Your task to perform on an android device: clear history in the chrome app Image 0: 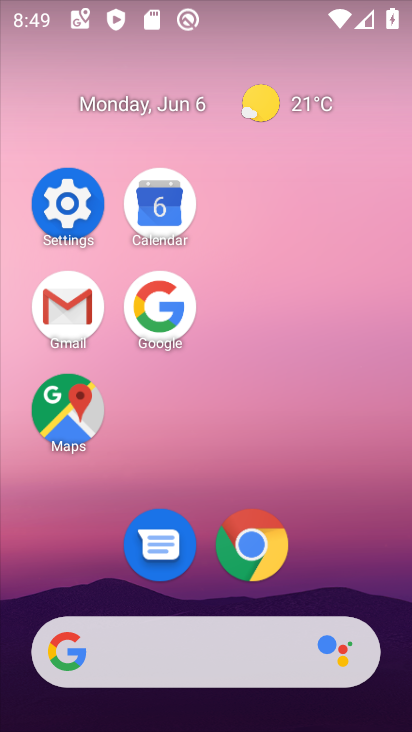
Step 0: click (272, 552)
Your task to perform on an android device: clear history in the chrome app Image 1: 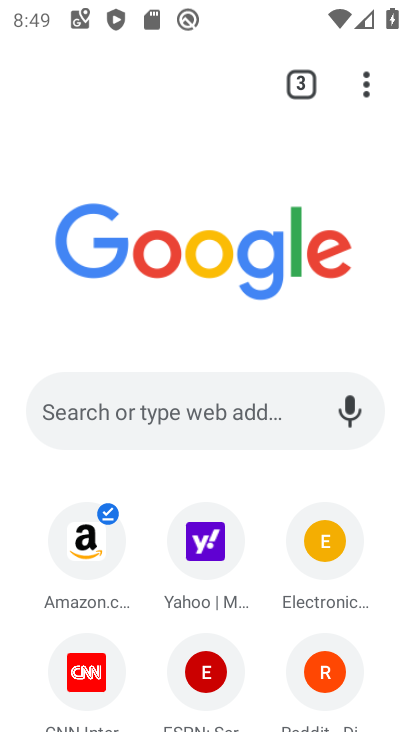
Step 1: click (383, 105)
Your task to perform on an android device: clear history in the chrome app Image 2: 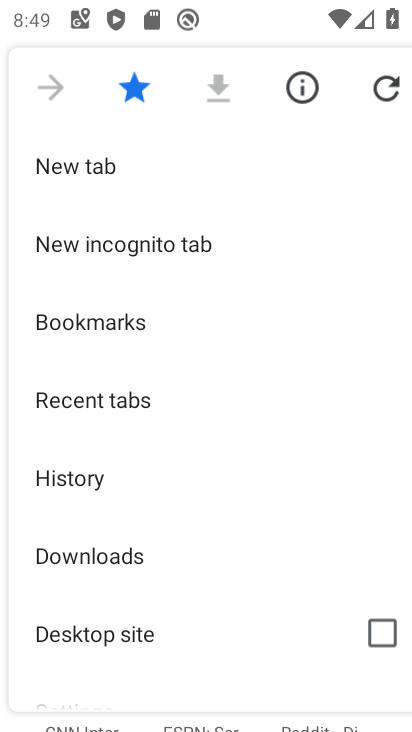
Step 2: click (130, 491)
Your task to perform on an android device: clear history in the chrome app Image 3: 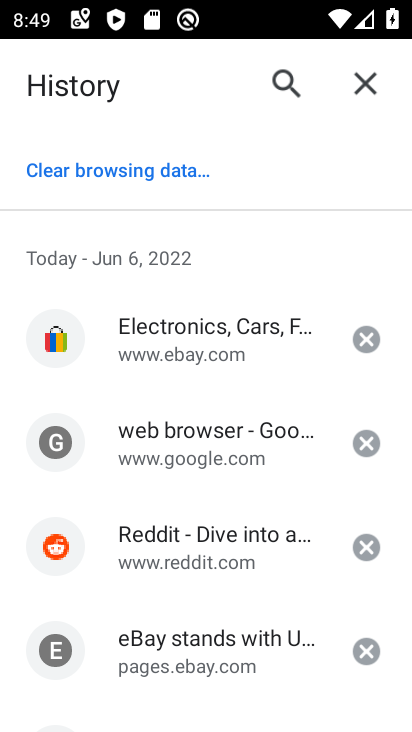
Step 3: click (146, 164)
Your task to perform on an android device: clear history in the chrome app Image 4: 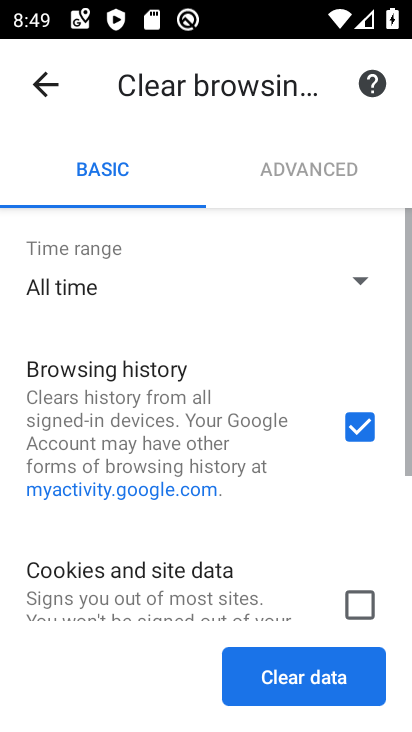
Step 4: click (367, 677)
Your task to perform on an android device: clear history in the chrome app Image 5: 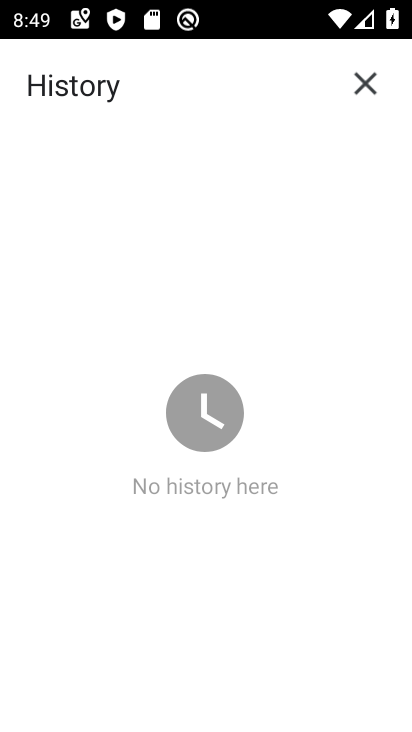
Step 5: task complete